Your task to perform on an android device: Open Google Maps and go to "Timeline" Image 0: 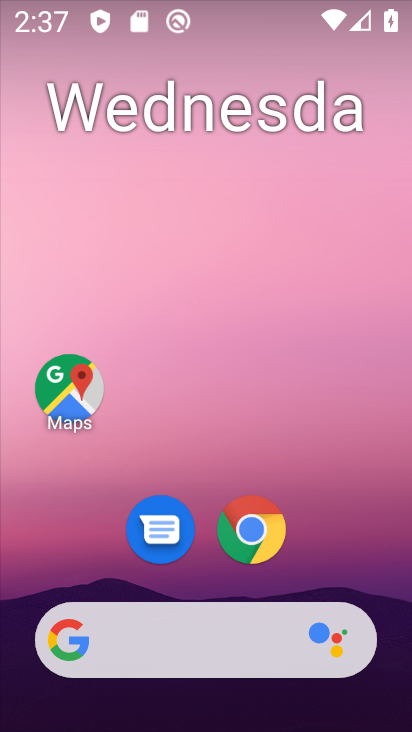
Step 0: drag from (323, 508) to (328, 68)
Your task to perform on an android device: Open Google Maps and go to "Timeline" Image 1: 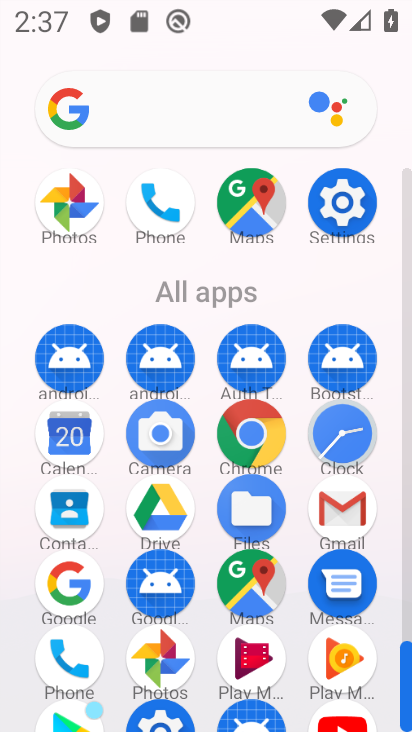
Step 1: click (242, 195)
Your task to perform on an android device: Open Google Maps and go to "Timeline" Image 2: 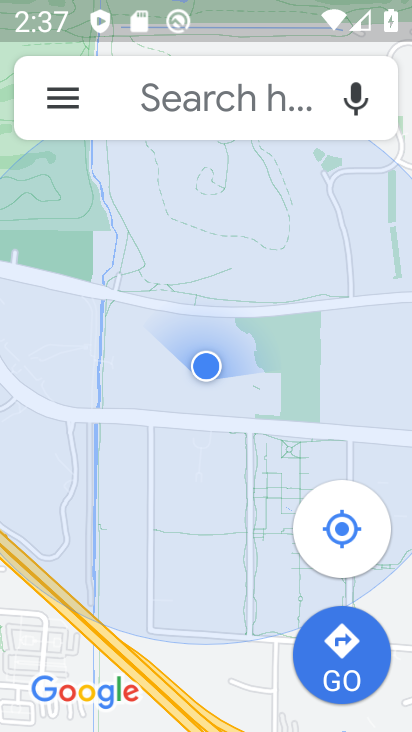
Step 2: click (46, 109)
Your task to perform on an android device: Open Google Maps and go to "Timeline" Image 3: 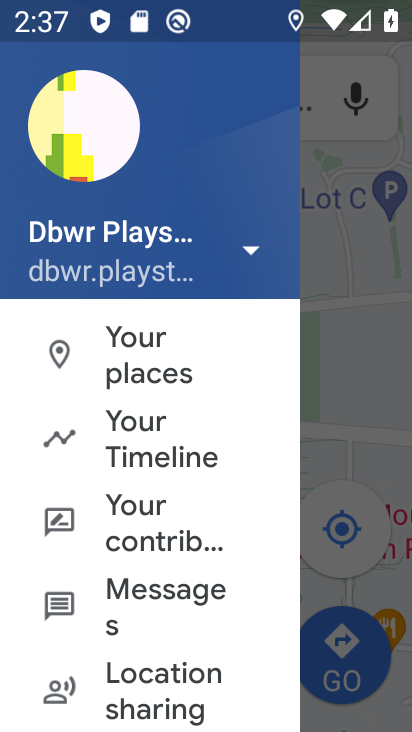
Step 3: click (118, 449)
Your task to perform on an android device: Open Google Maps and go to "Timeline" Image 4: 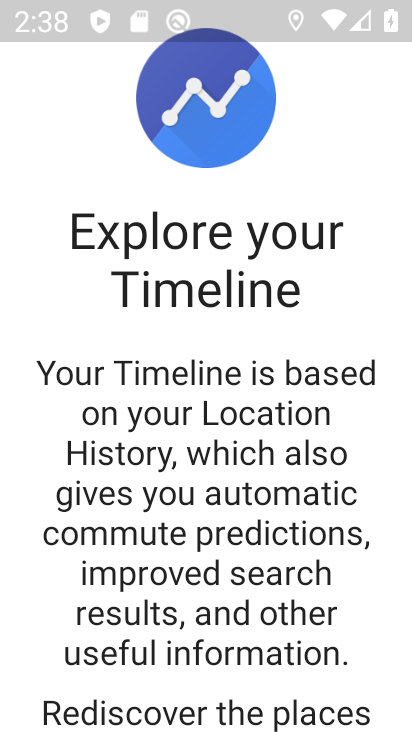
Step 4: drag from (235, 583) to (313, 227)
Your task to perform on an android device: Open Google Maps and go to "Timeline" Image 5: 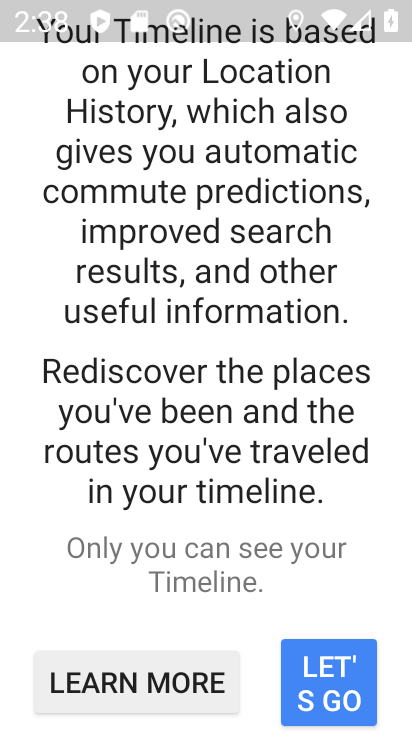
Step 5: drag from (252, 541) to (279, 301)
Your task to perform on an android device: Open Google Maps and go to "Timeline" Image 6: 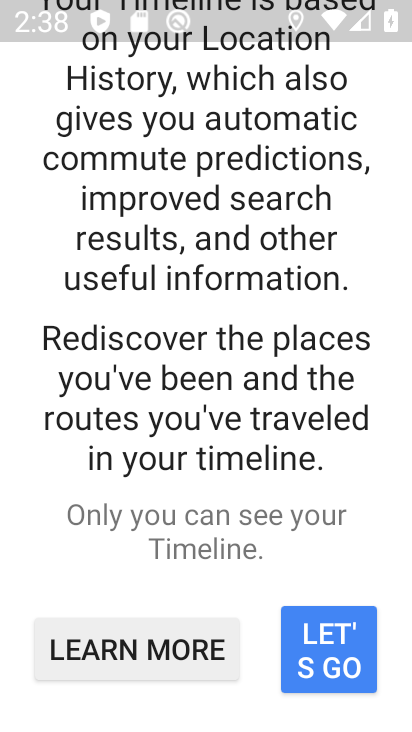
Step 6: click (294, 635)
Your task to perform on an android device: Open Google Maps and go to "Timeline" Image 7: 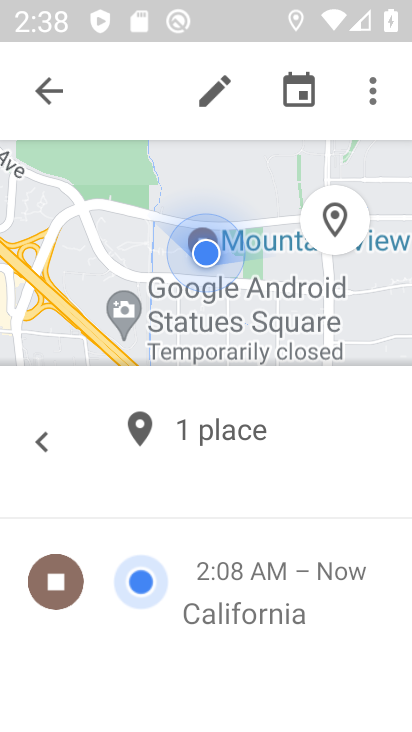
Step 7: task complete